Your task to perform on an android device: Set the phone to "Do not disturb". Image 0: 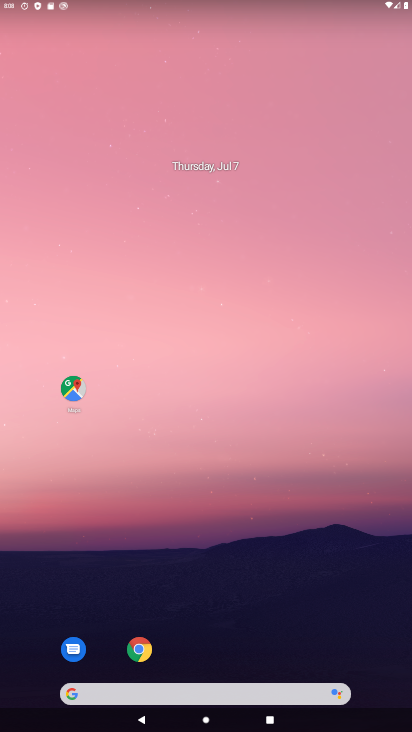
Step 0: press home button
Your task to perform on an android device: Set the phone to "Do not disturb". Image 1: 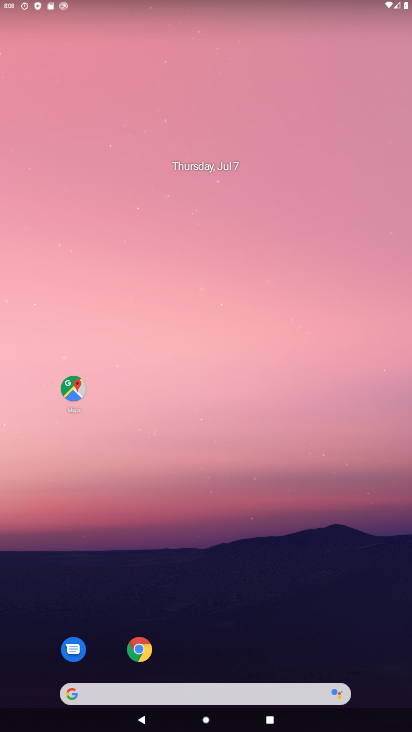
Step 1: drag from (231, 642) to (297, 62)
Your task to perform on an android device: Set the phone to "Do not disturb". Image 2: 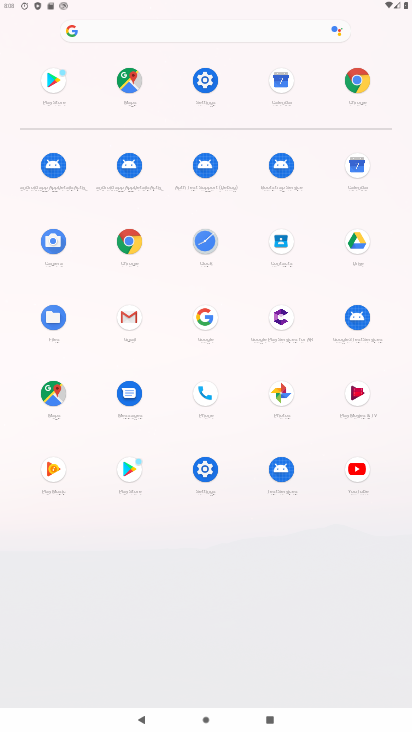
Step 2: drag from (193, 1) to (203, 511)
Your task to perform on an android device: Set the phone to "Do not disturb". Image 3: 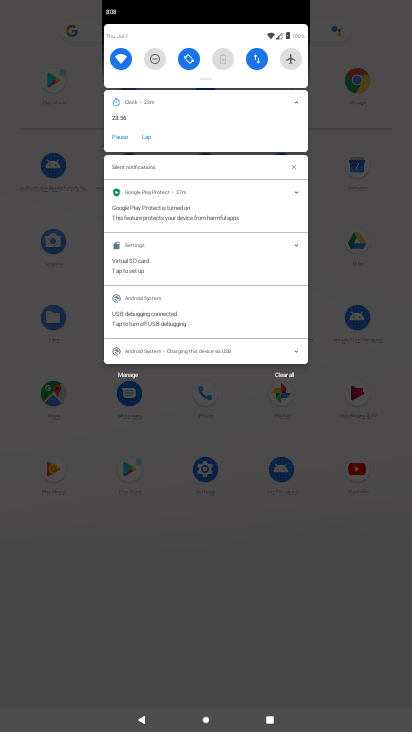
Step 3: click (158, 52)
Your task to perform on an android device: Set the phone to "Do not disturb". Image 4: 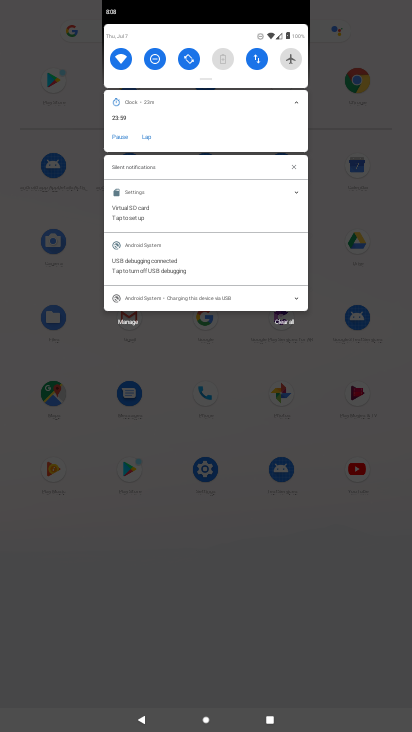
Step 4: task complete